Your task to perform on an android device: Show me popular games on the Play Store Image 0: 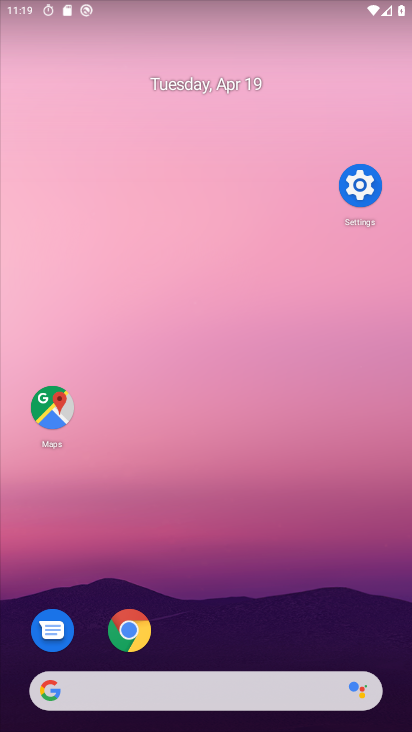
Step 0: drag from (293, 354) to (308, 109)
Your task to perform on an android device: Show me popular games on the Play Store Image 1: 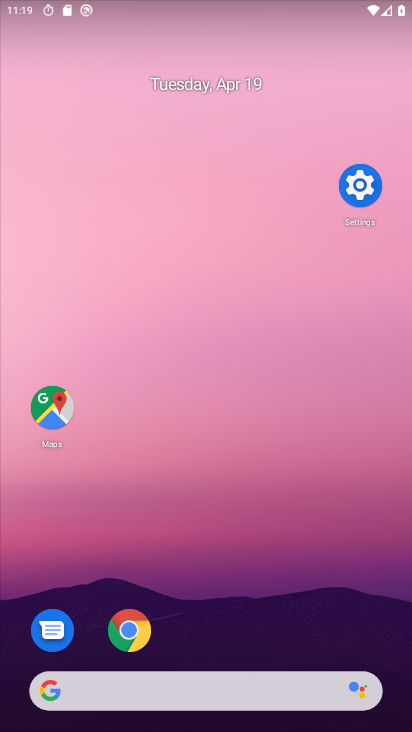
Step 1: drag from (262, 473) to (268, 372)
Your task to perform on an android device: Show me popular games on the Play Store Image 2: 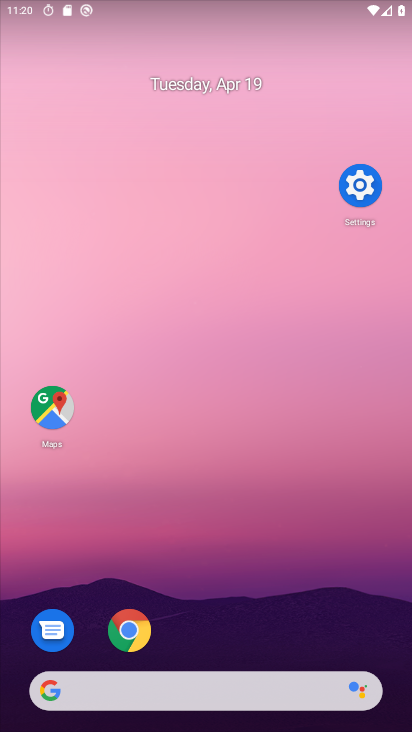
Step 2: drag from (238, 679) to (264, 183)
Your task to perform on an android device: Show me popular games on the Play Store Image 3: 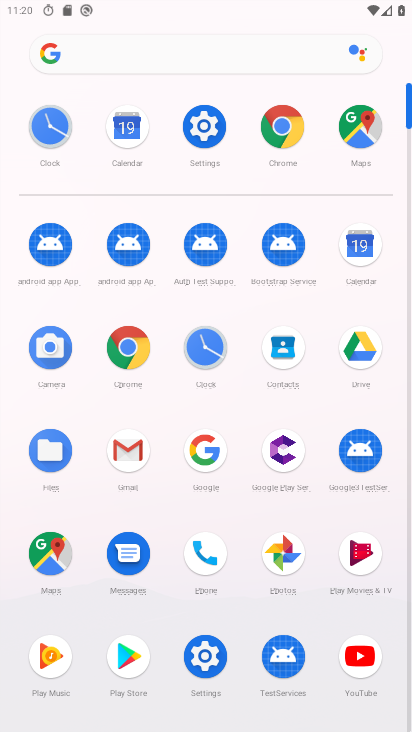
Step 3: click (123, 655)
Your task to perform on an android device: Show me popular games on the Play Store Image 4: 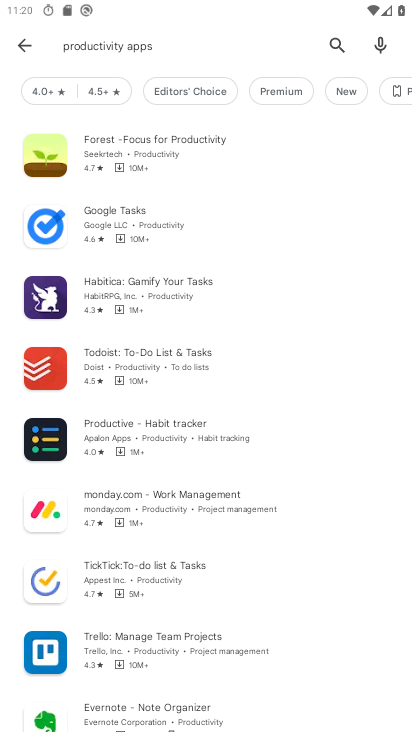
Step 4: click (19, 44)
Your task to perform on an android device: Show me popular games on the Play Store Image 5: 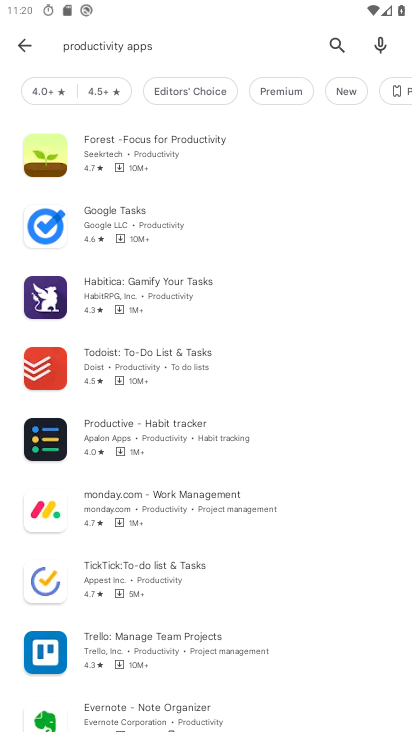
Step 5: click (28, 47)
Your task to perform on an android device: Show me popular games on the Play Store Image 6: 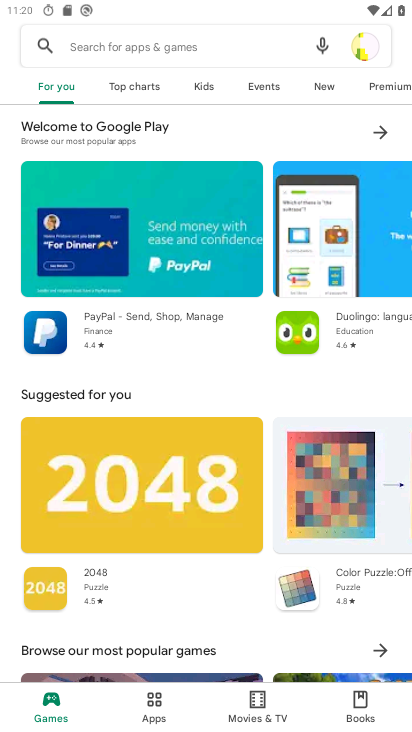
Step 6: task complete